Your task to perform on an android device: Search for Mexican restaurants on Maps Image 0: 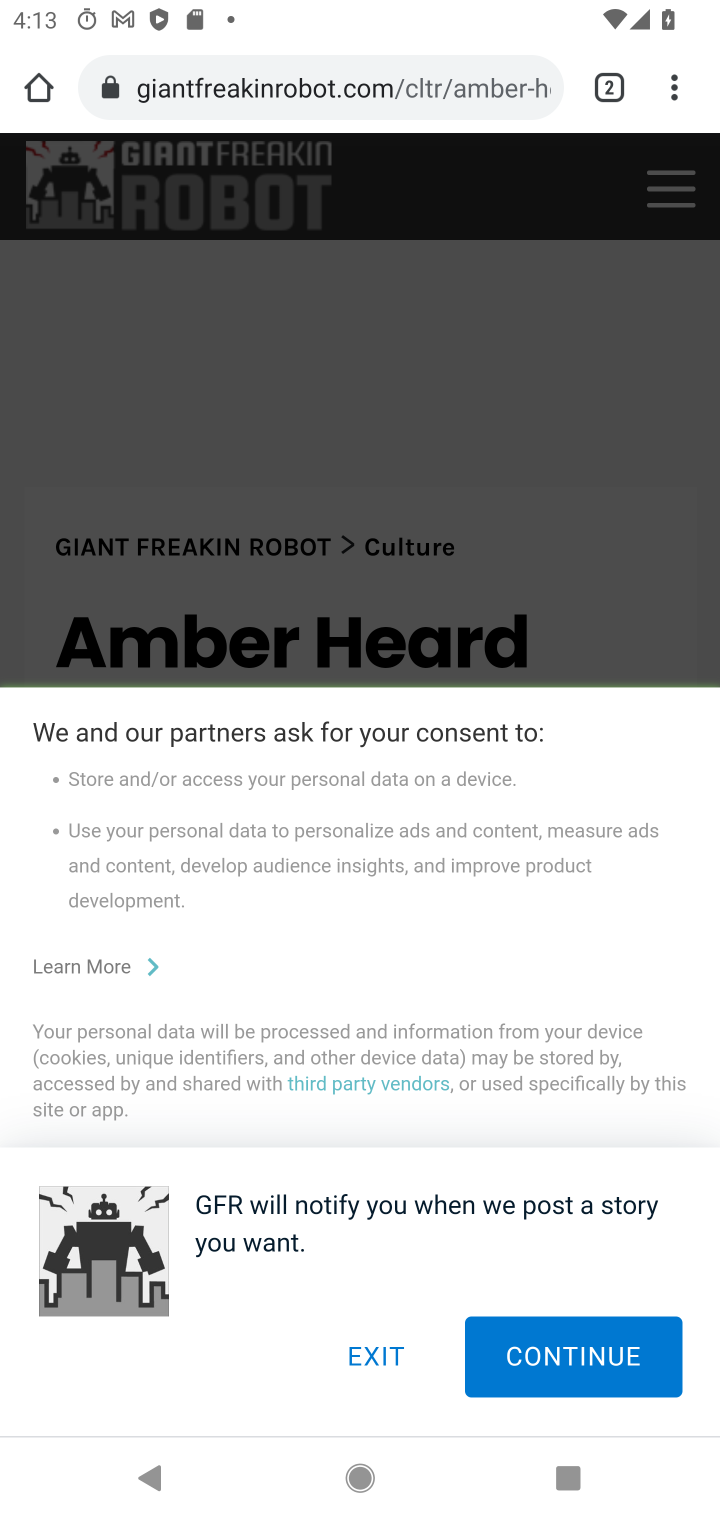
Step 0: press home button
Your task to perform on an android device: Search for Mexican restaurants on Maps Image 1: 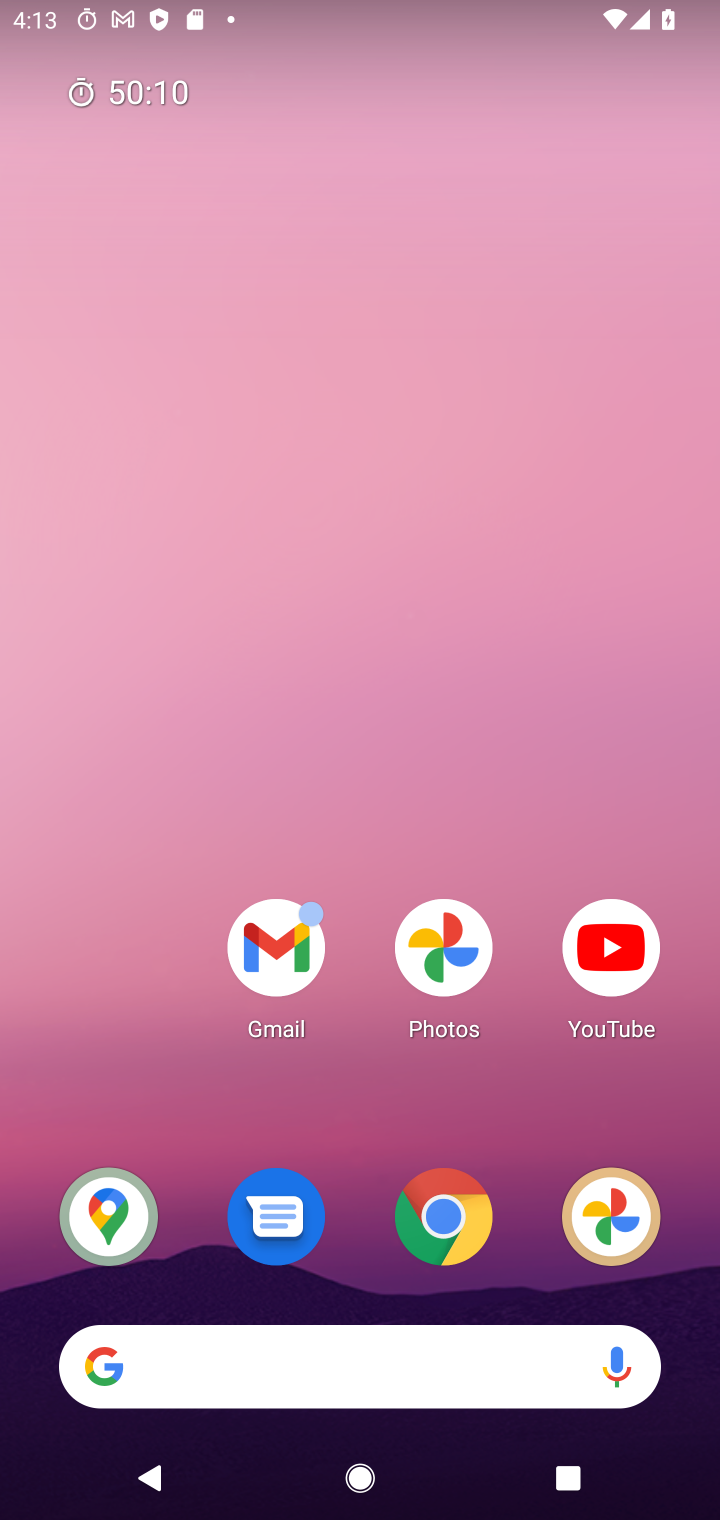
Step 1: click (107, 1234)
Your task to perform on an android device: Search for Mexican restaurants on Maps Image 2: 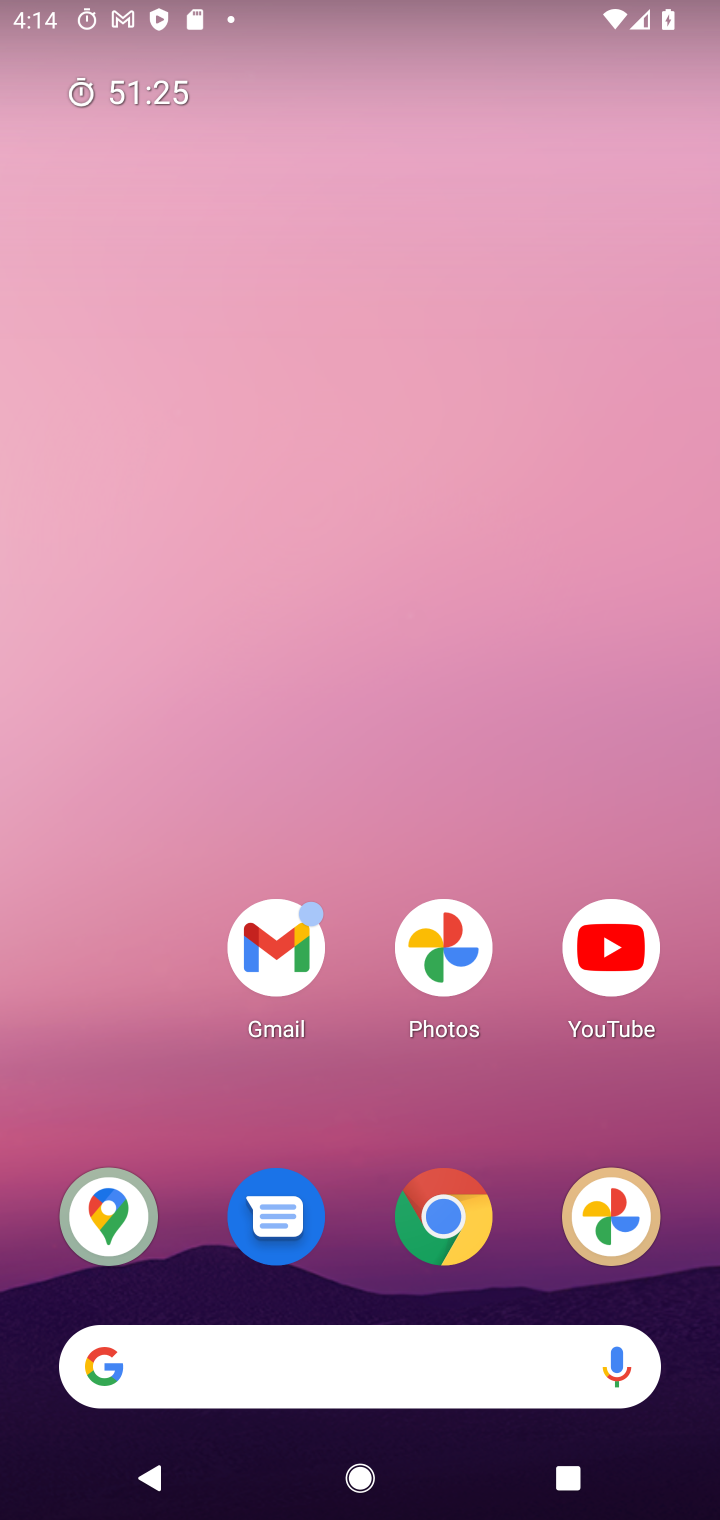
Step 2: click (116, 1229)
Your task to perform on an android device: Search for Mexican restaurants on Maps Image 3: 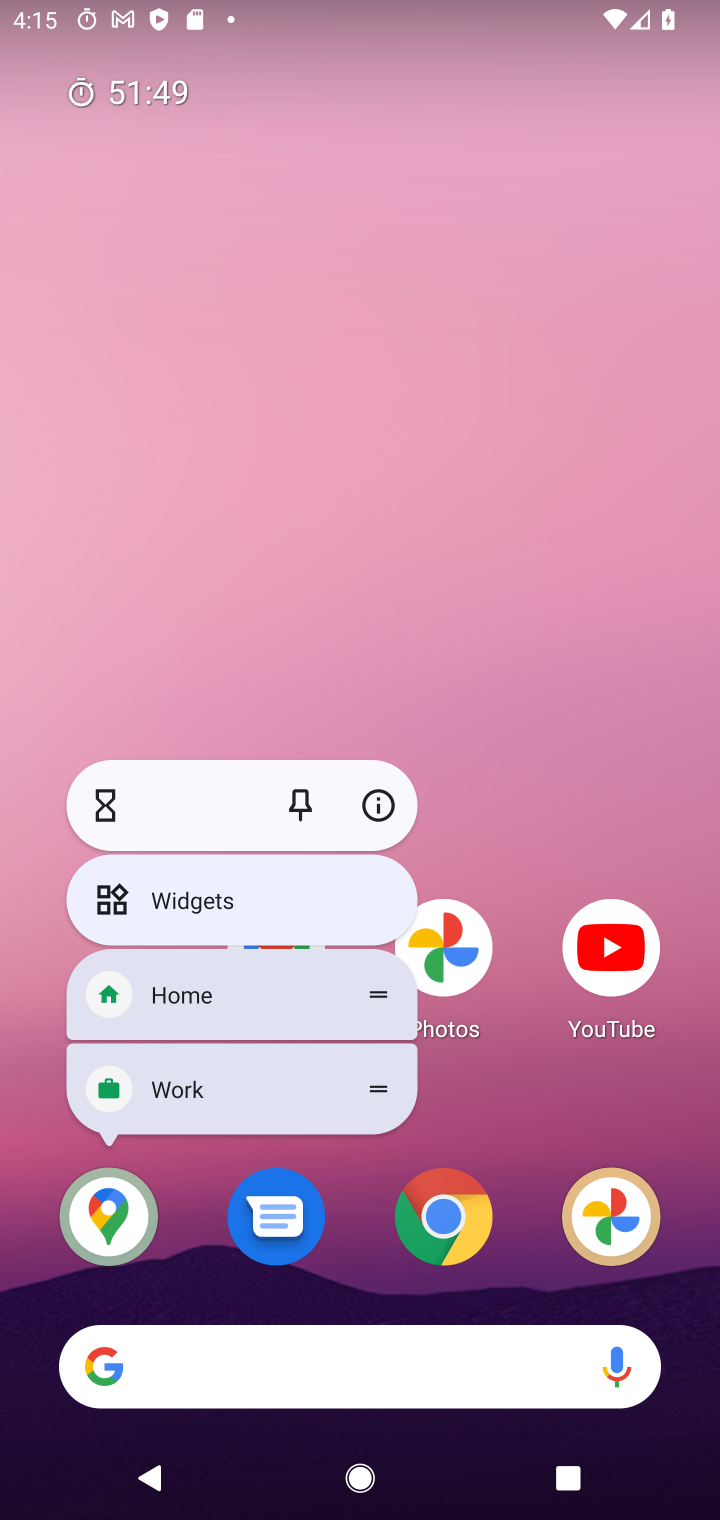
Step 3: click (87, 1220)
Your task to perform on an android device: Search for Mexican restaurants on Maps Image 4: 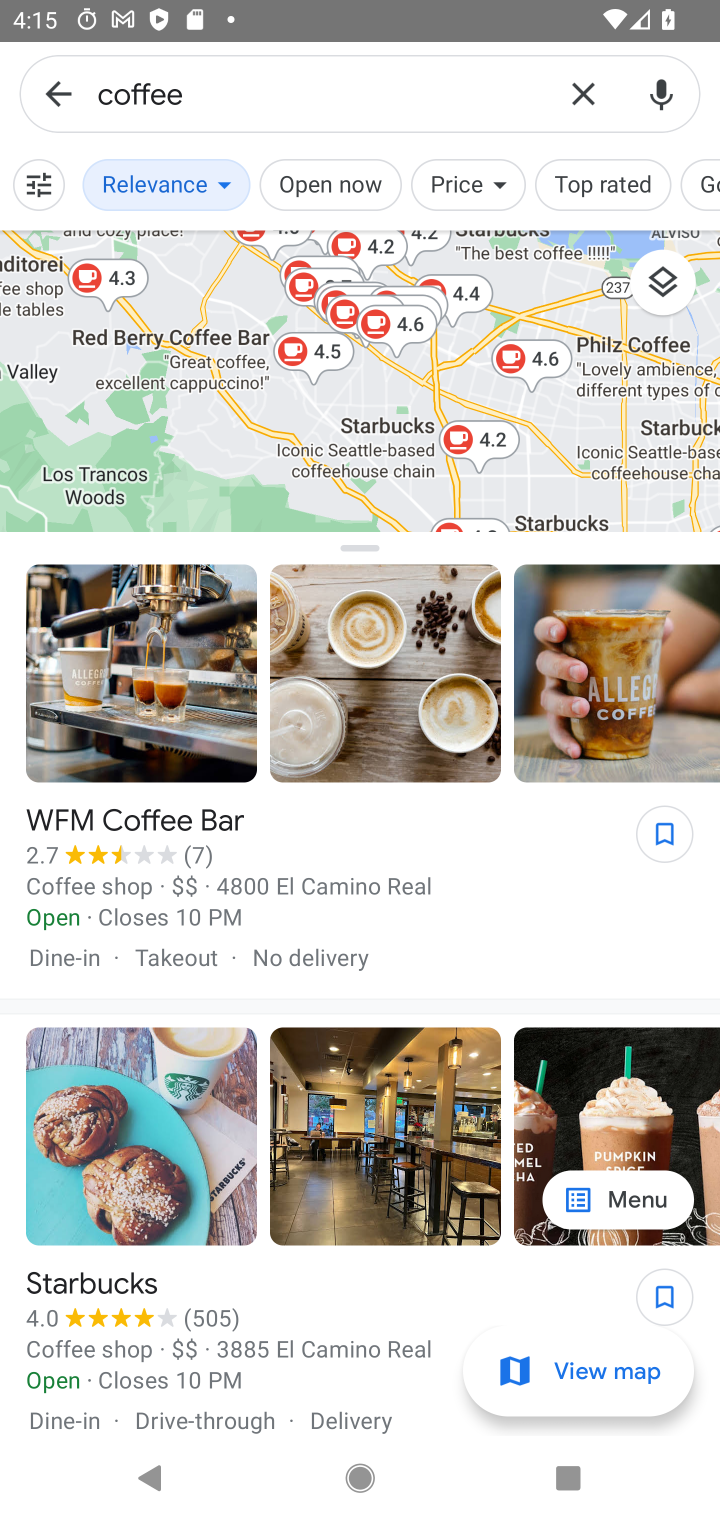
Step 4: click (589, 87)
Your task to perform on an android device: Search for Mexican restaurants on Maps Image 5: 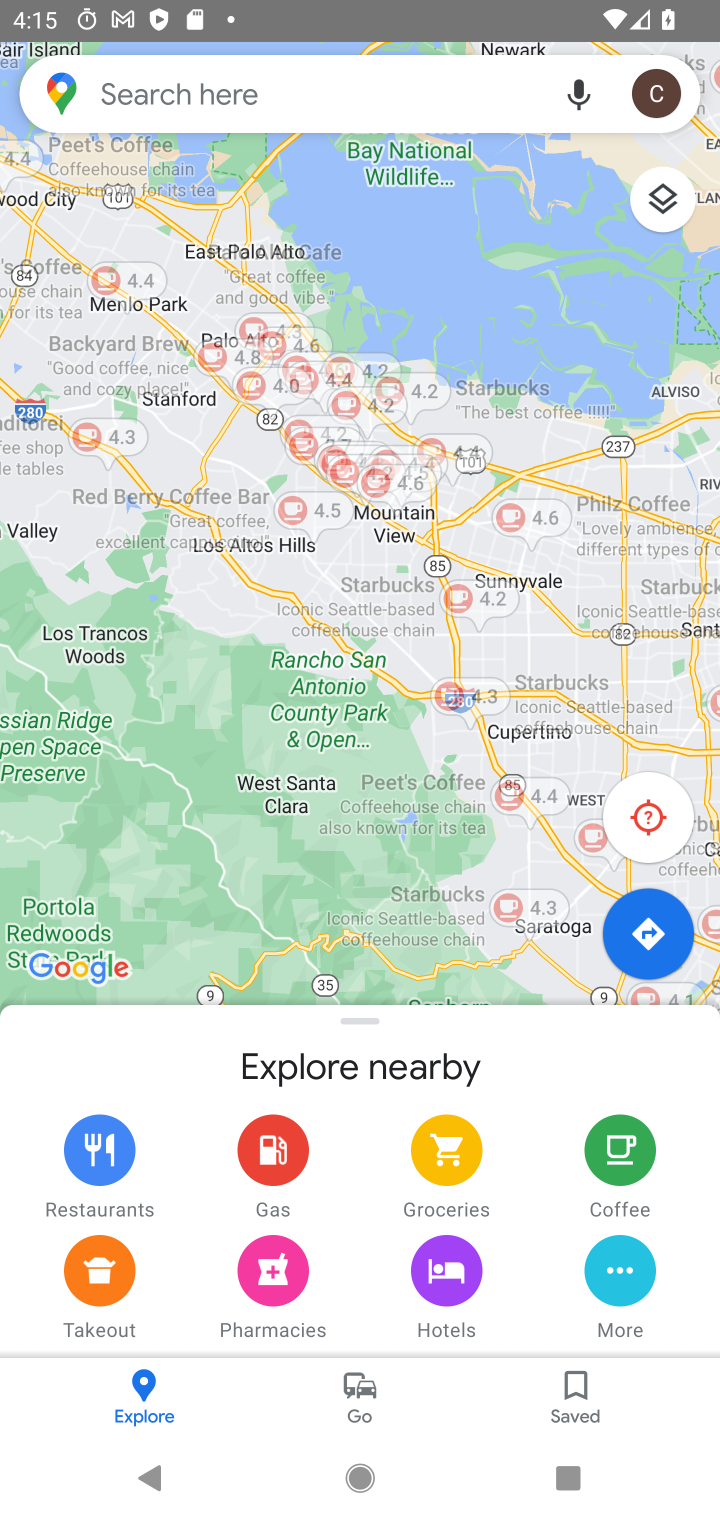
Step 5: click (351, 89)
Your task to perform on an android device: Search for Mexican restaurants on Maps Image 6: 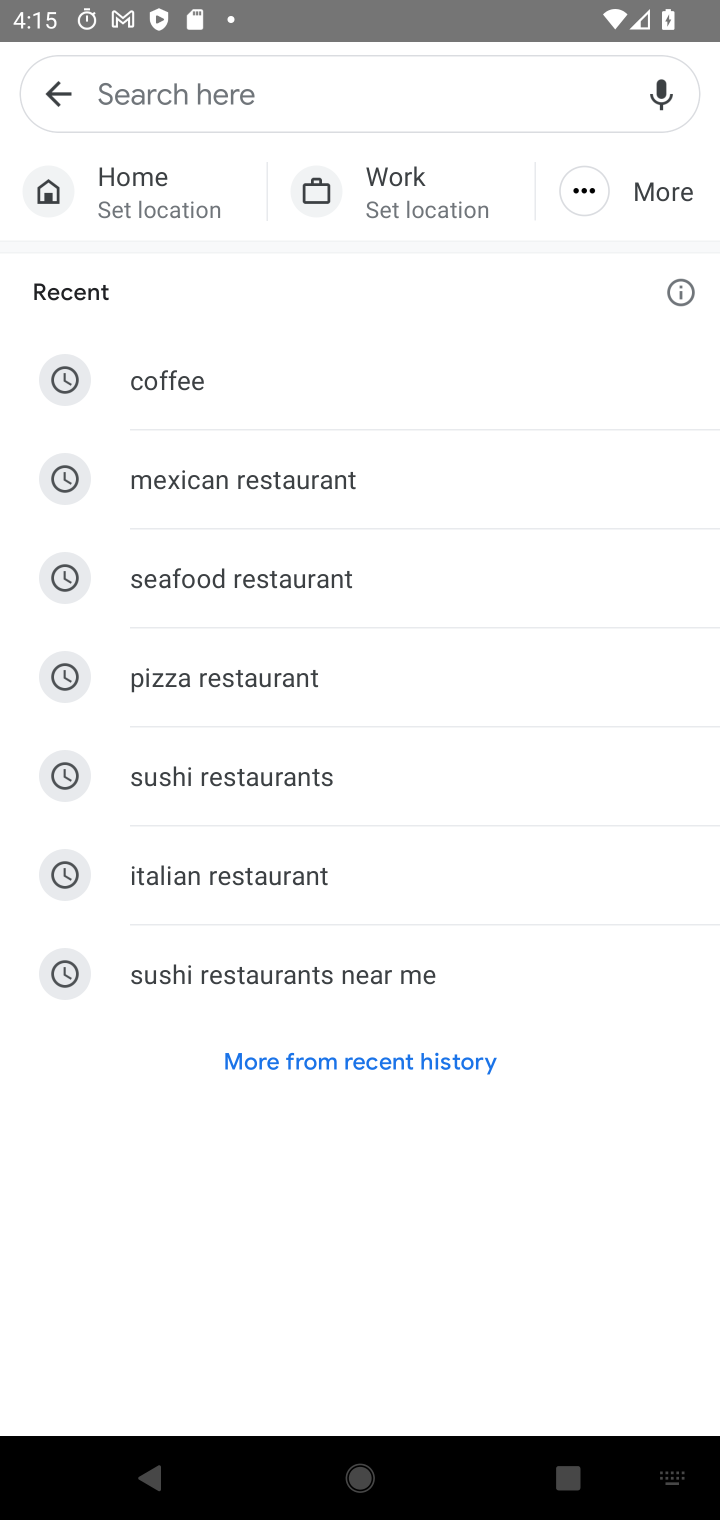
Step 6: click (225, 482)
Your task to perform on an android device: Search for Mexican restaurants on Maps Image 7: 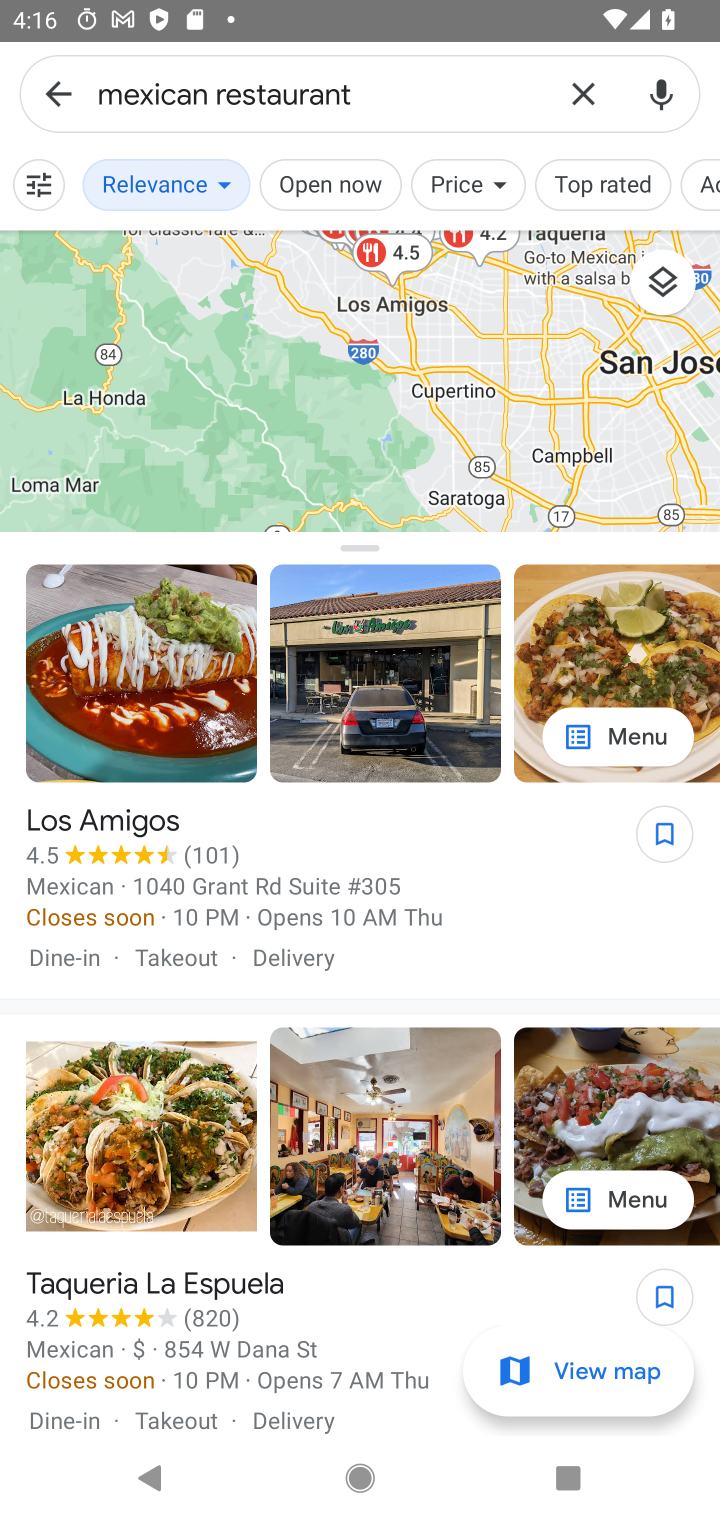
Step 7: task complete